Your task to perform on an android device: Turn off the flashlight Image 0: 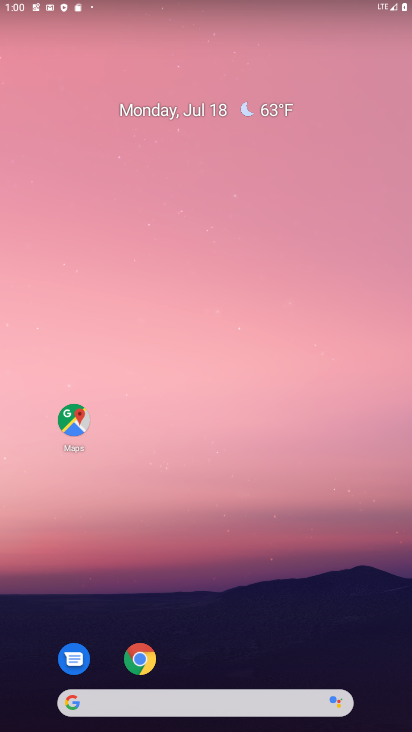
Step 0: drag from (229, 8) to (286, 671)
Your task to perform on an android device: Turn off the flashlight Image 1: 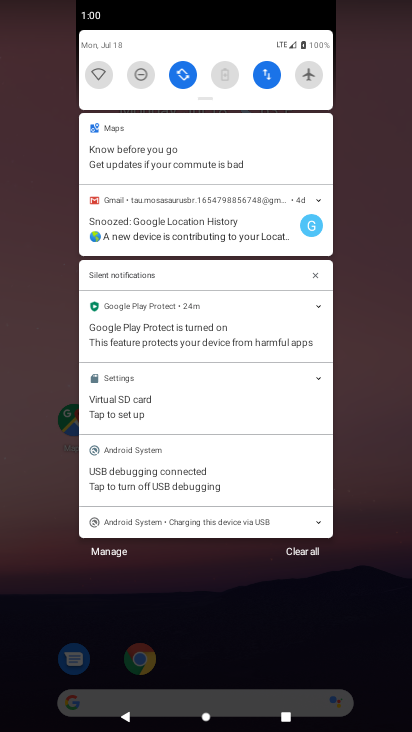
Step 1: drag from (232, 78) to (276, 503)
Your task to perform on an android device: Turn off the flashlight Image 2: 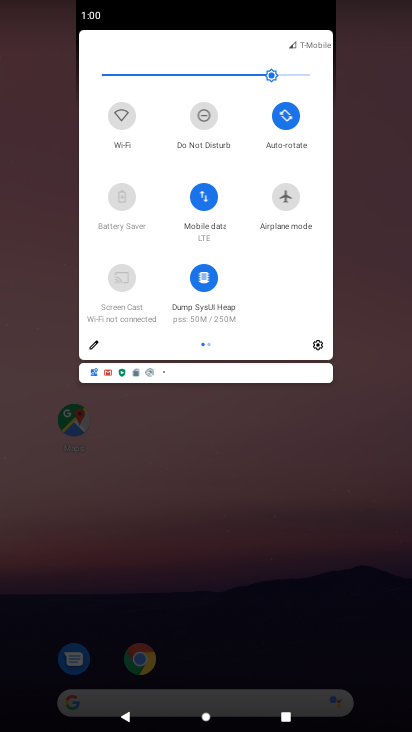
Step 2: drag from (251, 53) to (280, 282)
Your task to perform on an android device: Turn off the flashlight Image 3: 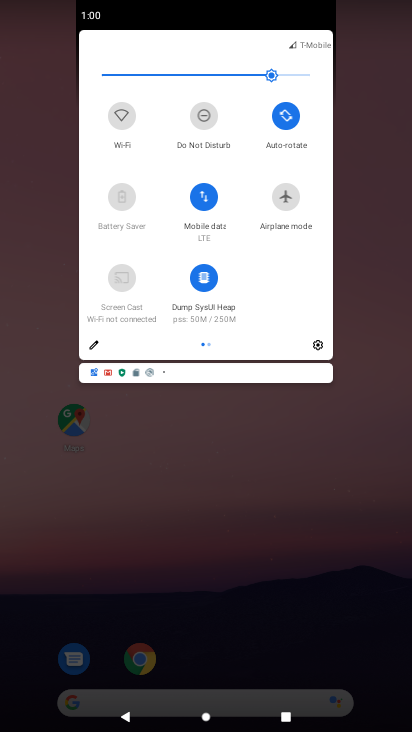
Step 3: drag from (291, 290) to (27, 279)
Your task to perform on an android device: Turn off the flashlight Image 4: 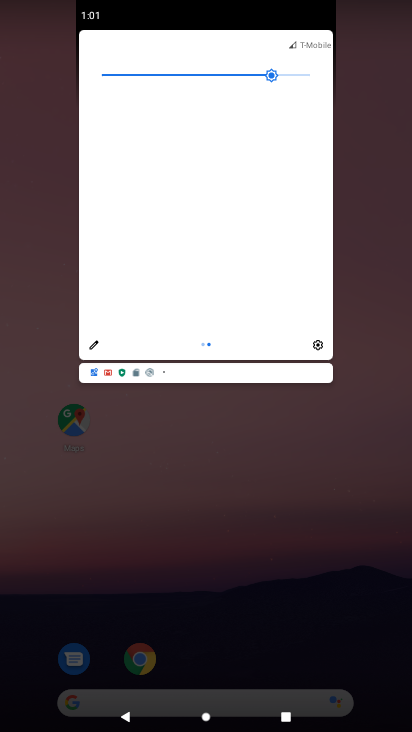
Step 4: click (93, 350)
Your task to perform on an android device: Turn off the flashlight Image 5: 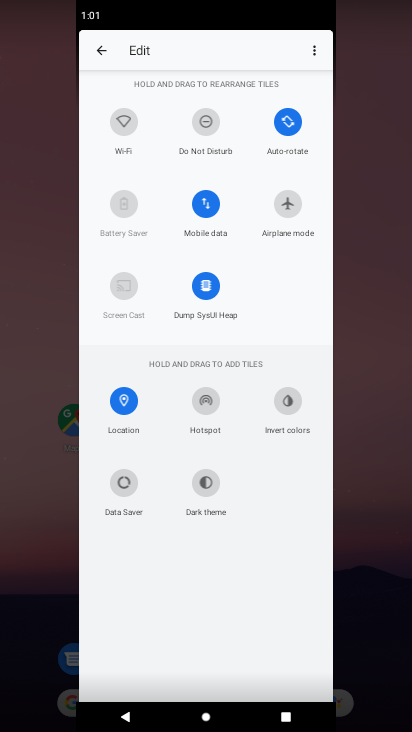
Step 5: task complete